Your task to perform on an android device: delete a single message in the gmail app Image 0: 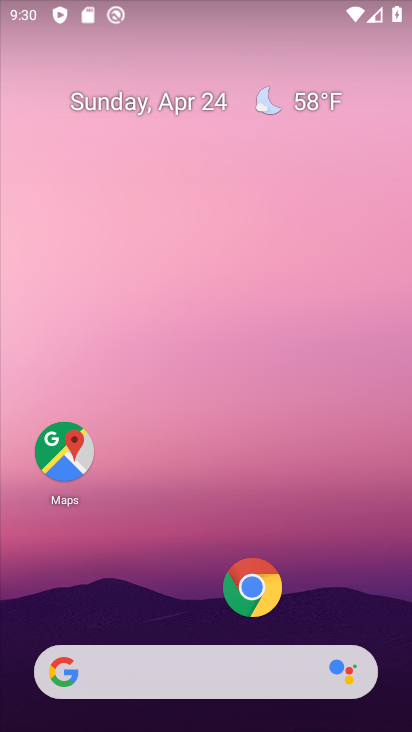
Step 0: drag from (103, 635) to (291, 50)
Your task to perform on an android device: delete a single message in the gmail app Image 1: 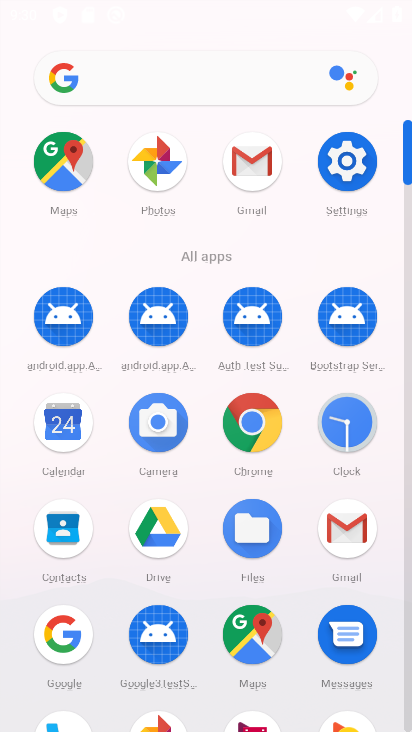
Step 1: click (263, 169)
Your task to perform on an android device: delete a single message in the gmail app Image 2: 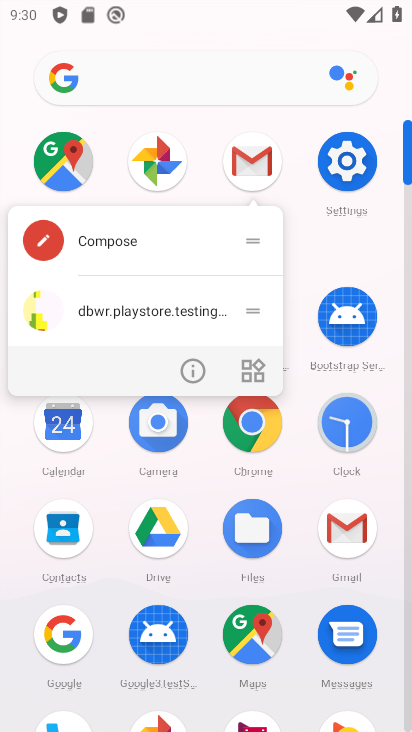
Step 2: click (262, 169)
Your task to perform on an android device: delete a single message in the gmail app Image 3: 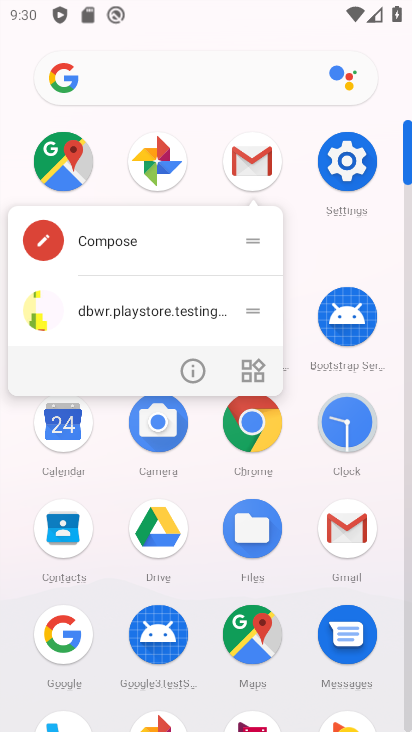
Step 3: click (250, 145)
Your task to perform on an android device: delete a single message in the gmail app Image 4: 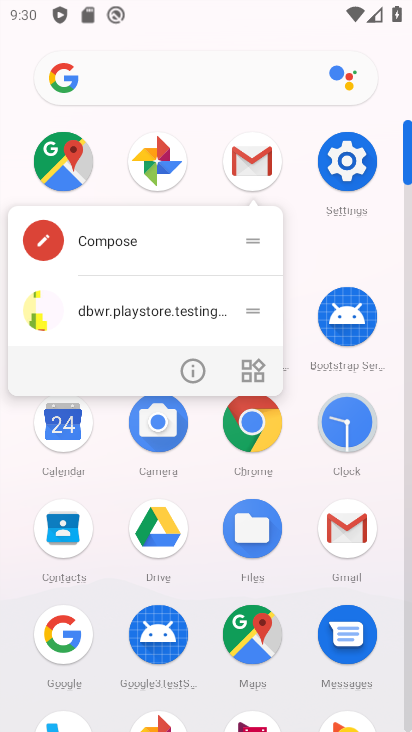
Step 4: click (243, 157)
Your task to perform on an android device: delete a single message in the gmail app Image 5: 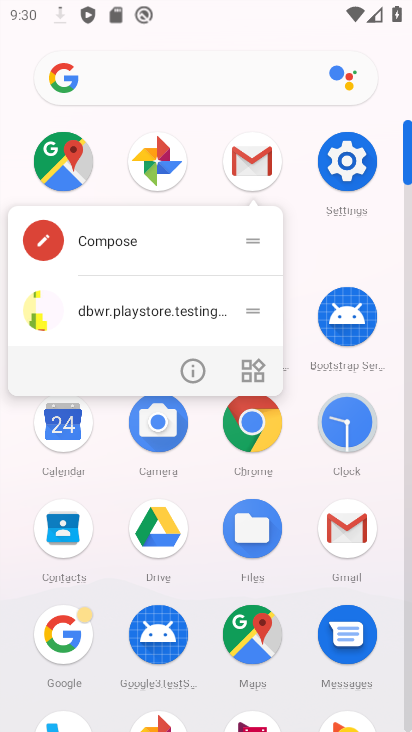
Step 5: click (259, 169)
Your task to perform on an android device: delete a single message in the gmail app Image 6: 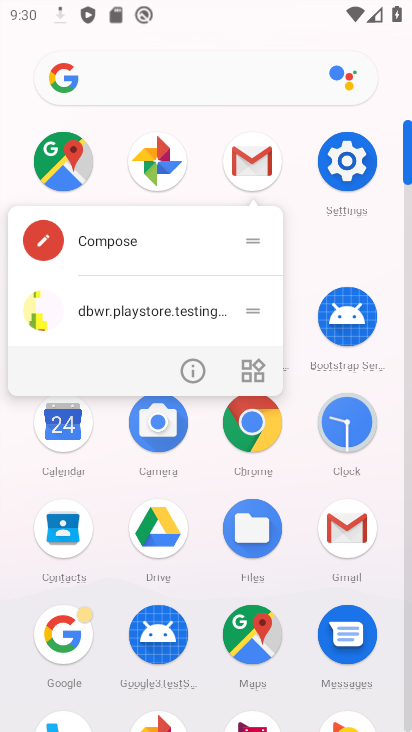
Step 6: click (268, 157)
Your task to perform on an android device: delete a single message in the gmail app Image 7: 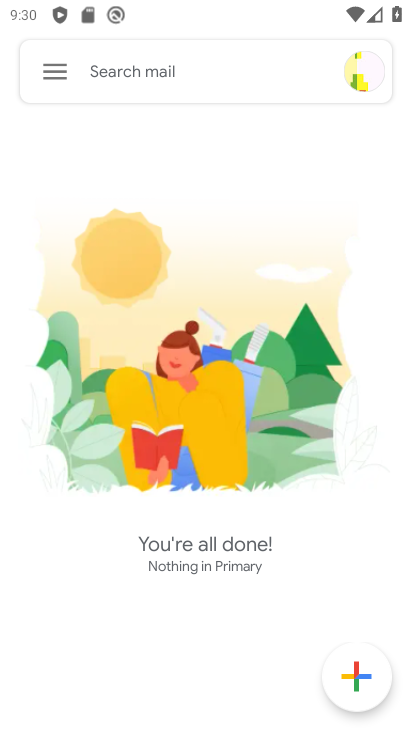
Step 7: click (63, 79)
Your task to perform on an android device: delete a single message in the gmail app Image 8: 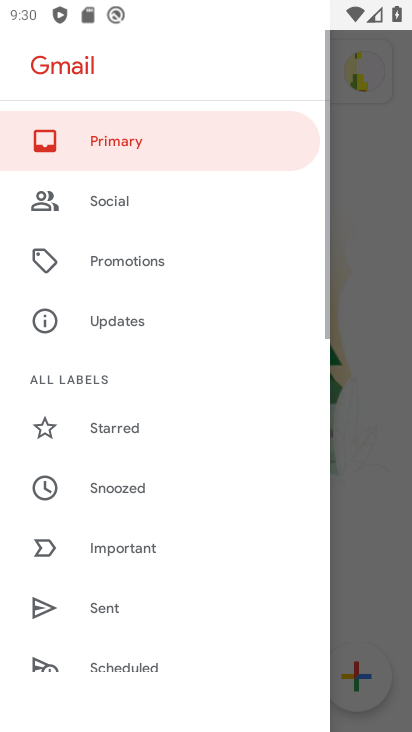
Step 8: drag from (115, 557) to (237, 162)
Your task to perform on an android device: delete a single message in the gmail app Image 9: 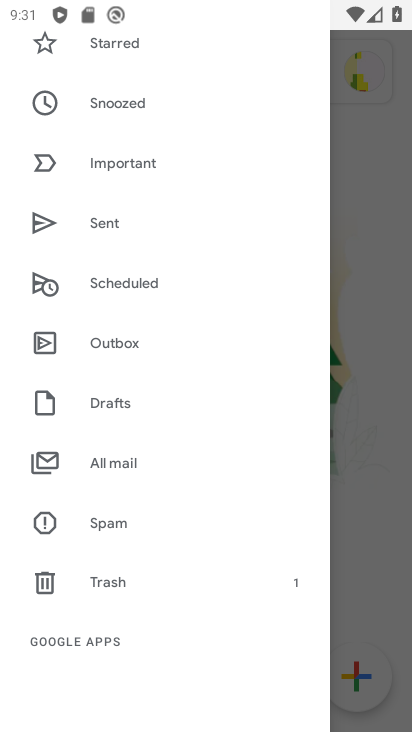
Step 9: click (169, 461)
Your task to perform on an android device: delete a single message in the gmail app Image 10: 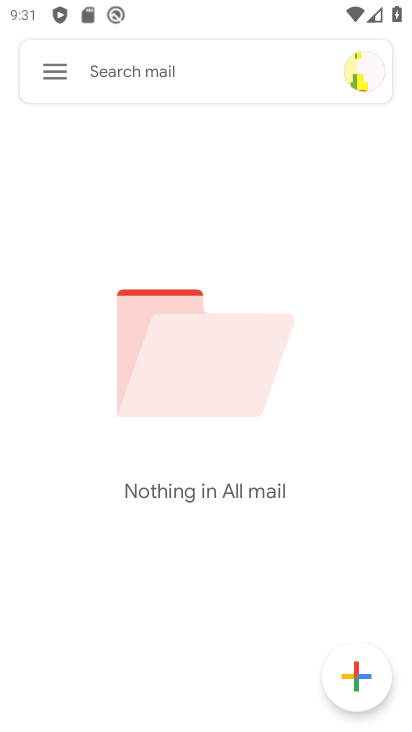
Step 10: task complete